Your task to perform on an android device: Open Google Maps and go to "Timeline" Image 0: 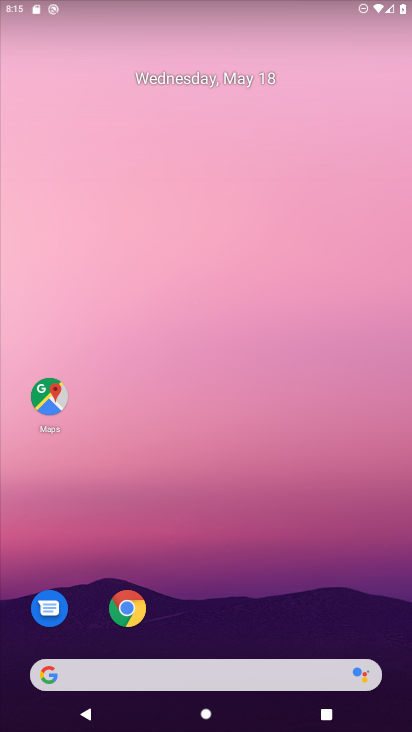
Step 0: drag from (294, 648) to (317, 124)
Your task to perform on an android device: Open Google Maps and go to "Timeline" Image 1: 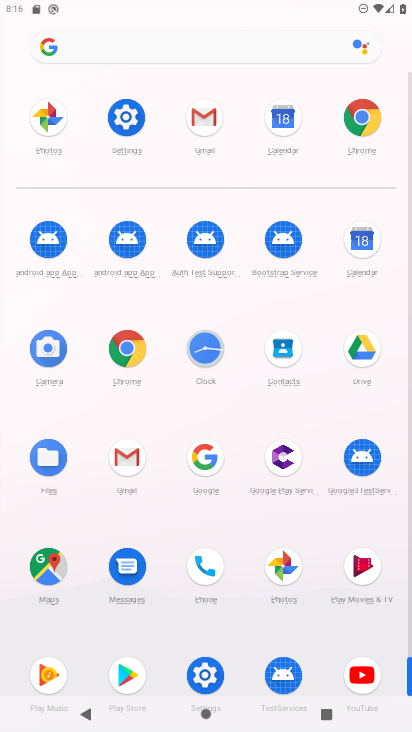
Step 1: click (57, 564)
Your task to perform on an android device: Open Google Maps and go to "Timeline" Image 2: 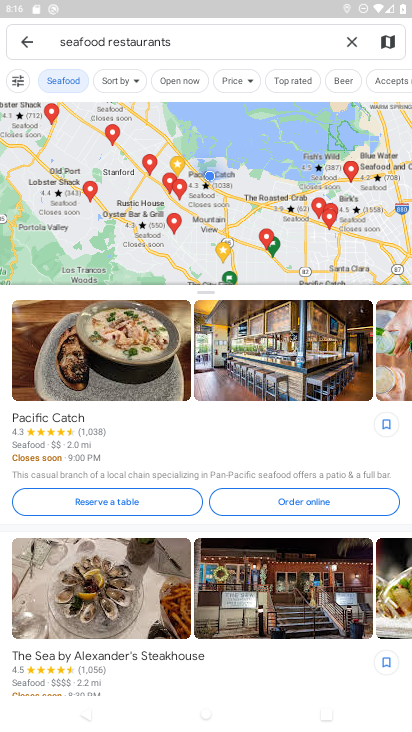
Step 2: click (35, 46)
Your task to perform on an android device: Open Google Maps and go to "Timeline" Image 3: 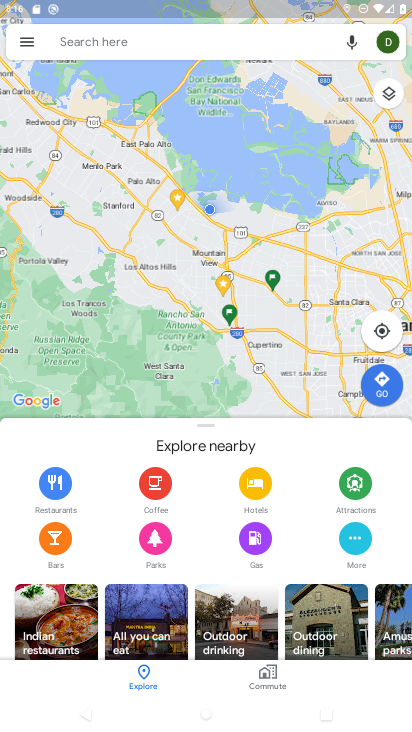
Step 3: click (36, 40)
Your task to perform on an android device: Open Google Maps and go to "Timeline" Image 4: 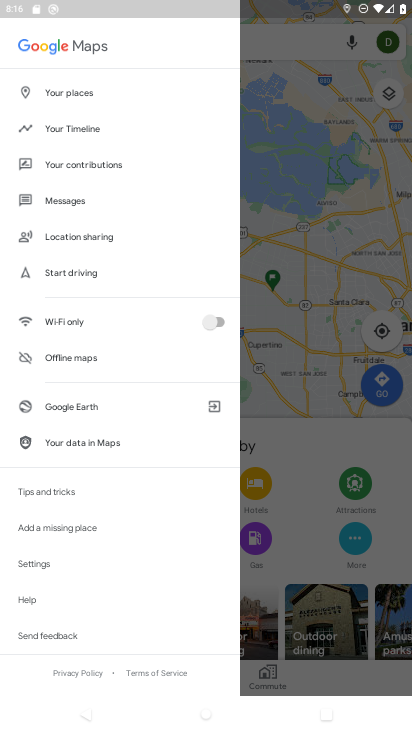
Step 4: click (63, 126)
Your task to perform on an android device: Open Google Maps and go to "Timeline" Image 5: 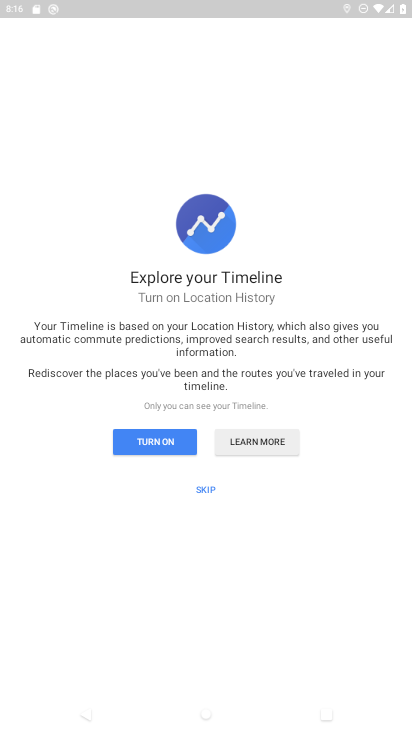
Step 5: click (212, 486)
Your task to perform on an android device: Open Google Maps and go to "Timeline" Image 6: 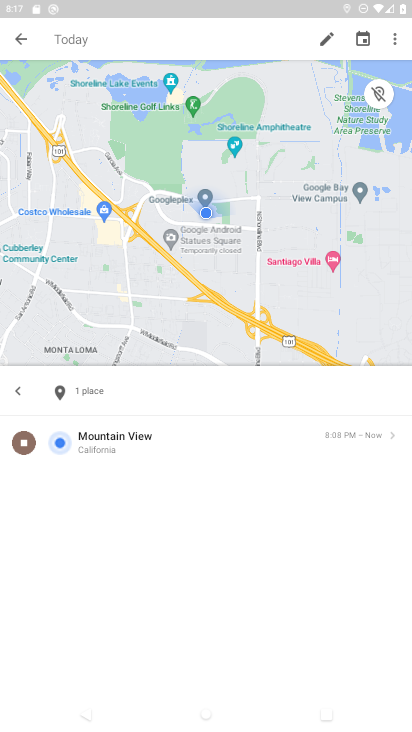
Step 6: task complete